Your task to perform on an android device: Open settings on Google Maps Image 0: 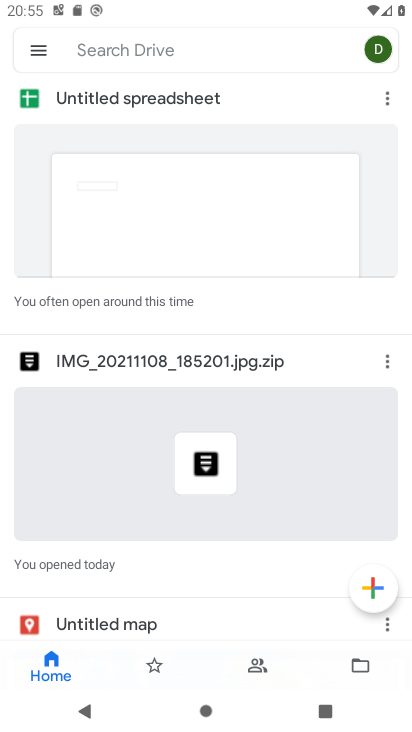
Step 0: press home button
Your task to perform on an android device: Open settings on Google Maps Image 1: 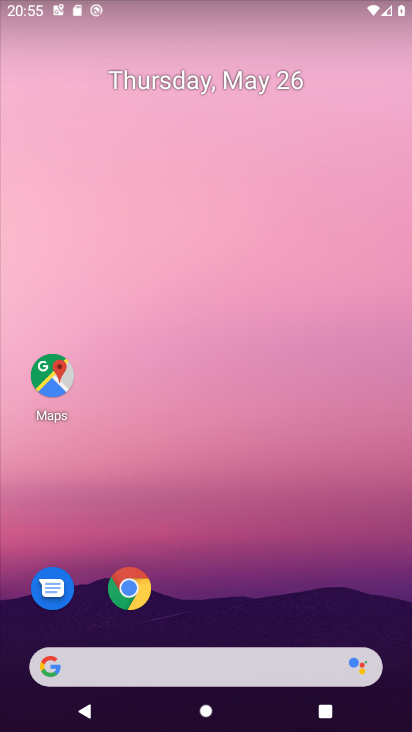
Step 1: click (54, 380)
Your task to perform on an android device: Open settings on Google Maps Image 2: 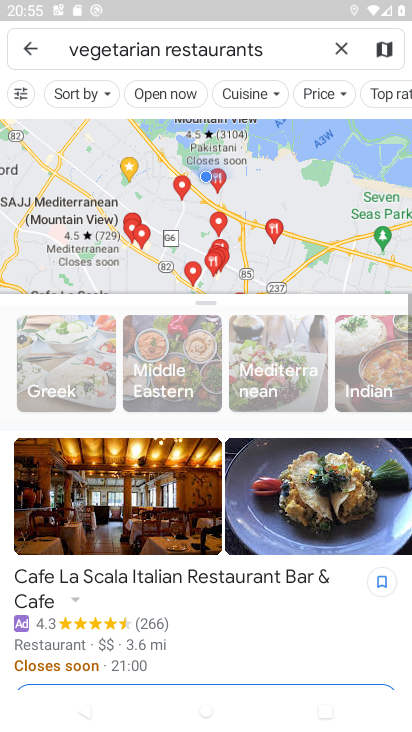
Step 2: click (37, 48)
Your task to perform on an android device: Open settings on Google Maps Image 3: 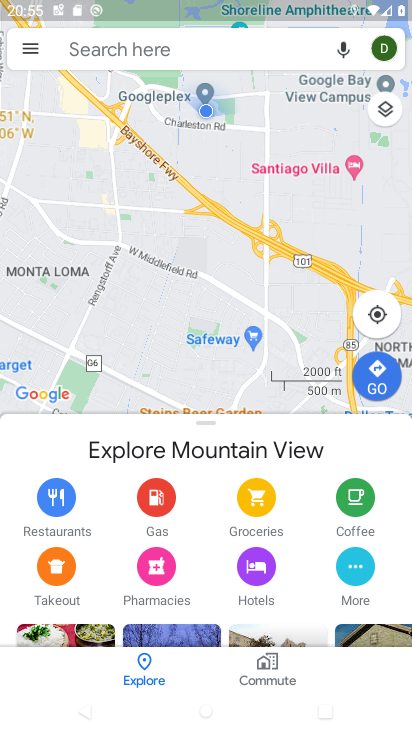
Step 3: click (37, 48)
Your task to perform on an android device: Open settings on Google Maps Image 4: 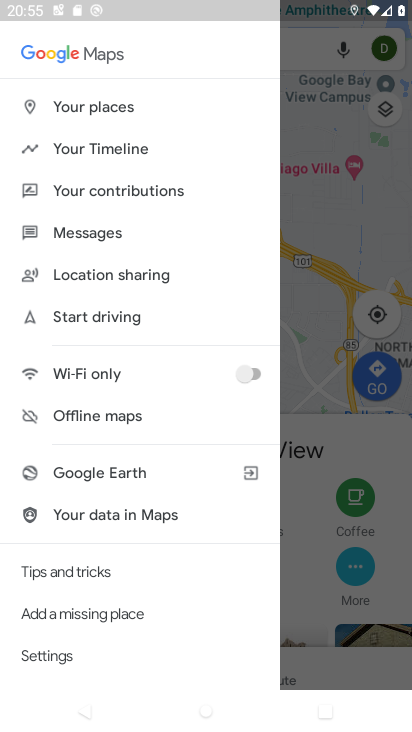
Step 4: click (68, 659)
Your task to perform on an android device: Open settings on Google Maps Image 5: 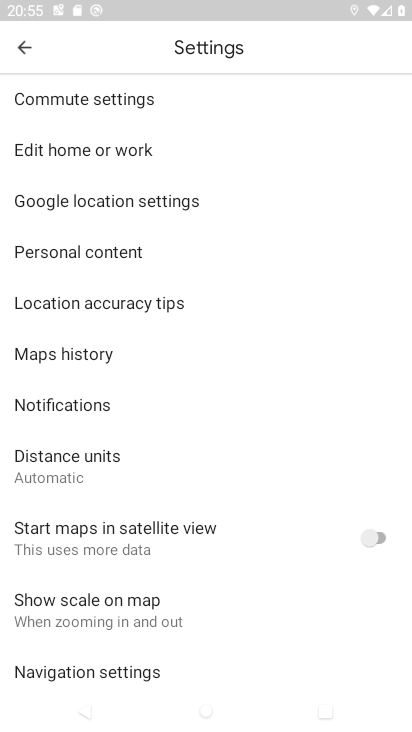
Step 5: task complete